Your task to perform on an android device: refresh tabs in the chrome app Image 0: 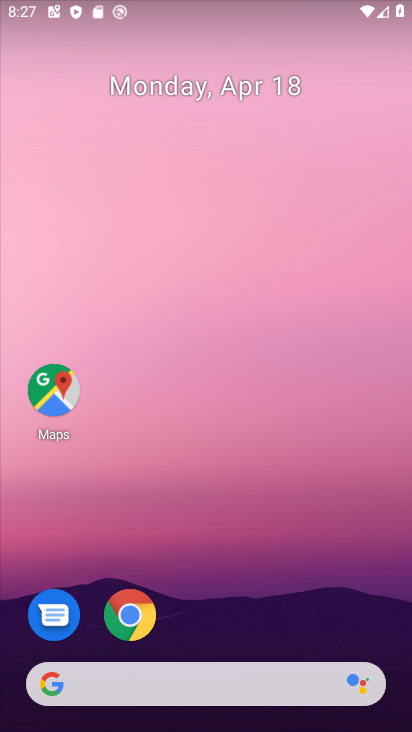
Step 0: click (135, 610)
Your task to perform on an android device: refresh tabs in the chrome app Image 1: 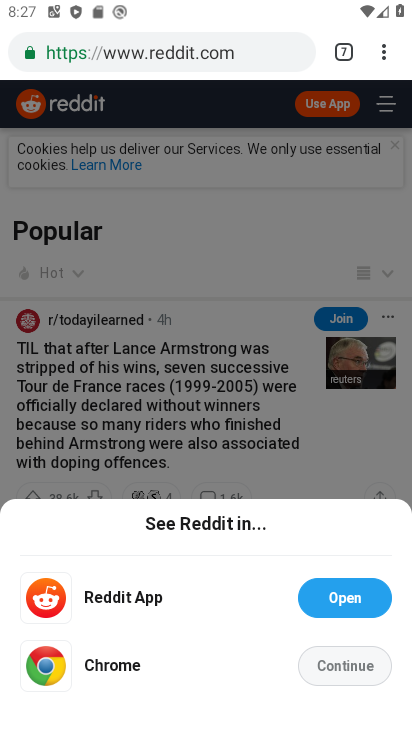
Step 1: click (386, 57)
Your task to perform on an android device: refresh tabs in the chrome app Image 2: 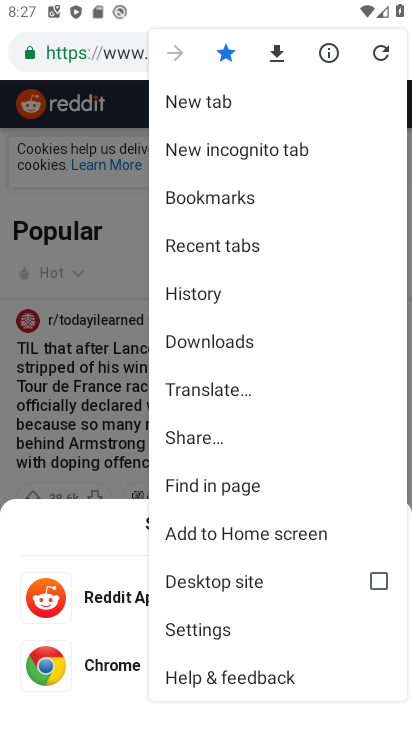
Step 2: click (380, 51)
Your task to perform on an android device: refresh tabs in the chrome app Image 3: 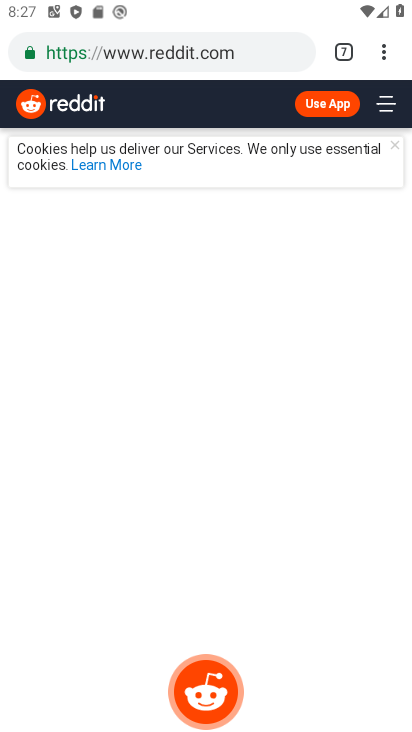
Step 3: task complete